Your task to perform on an android device: visit the assistant section in the google photos Image 0: 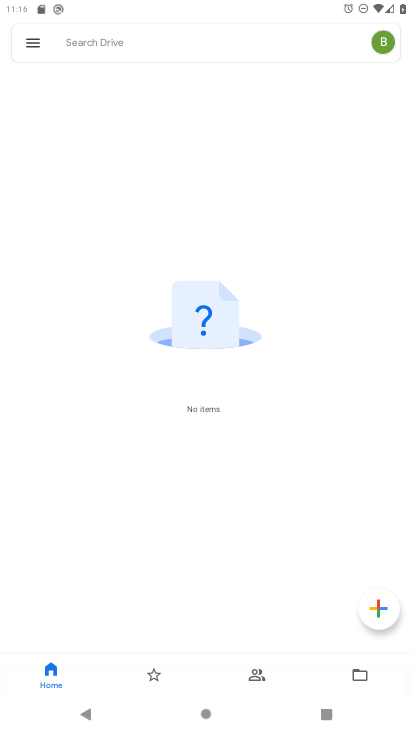
Step 0: press home button
Your task to perform on an android device: visit the assistant section in the google photos Image 1: 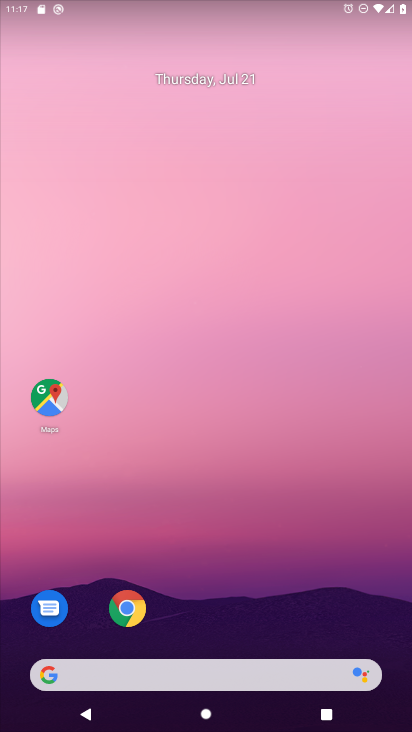
Step 1: drag from (264, 289) to (11, 589)
Your task to perform on an android device: visit the assistant section in the google photos Image 2: 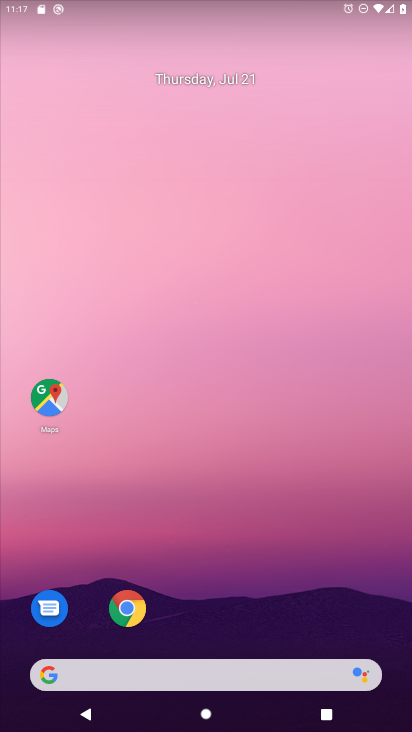
Step 2: drag from (313, 614) to (202, 20)
Your task to perform on an android device: visit the assistant section in the google photos Image 3: 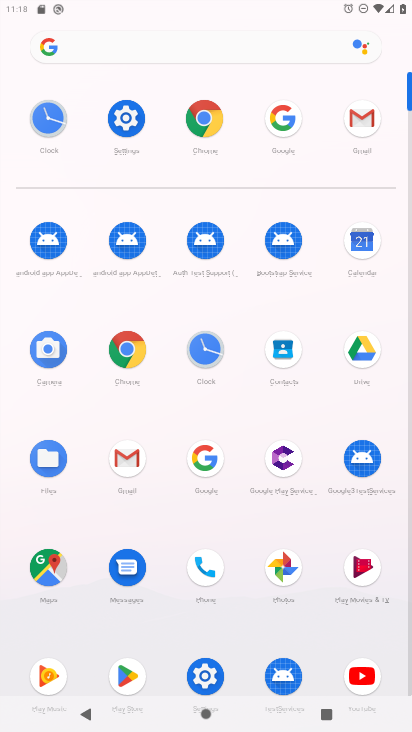
Step 3: click (274, 570)
Your task to perform on an android device: visit the assistant section in the google photos Image 4: 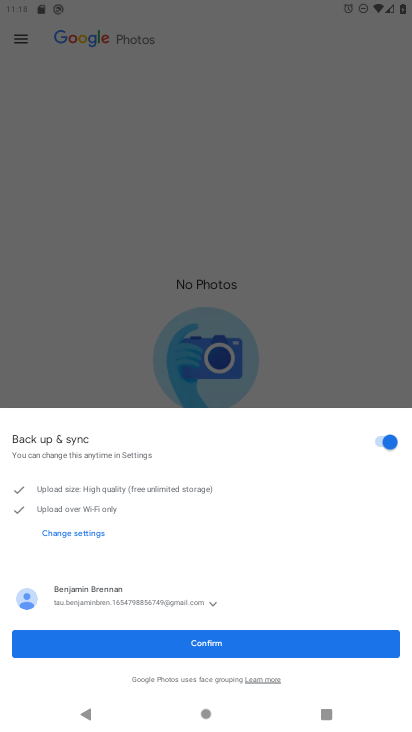
Step 4: click (198, 641)
Your task to perform on an android device: visit the assistant section in the google photos Image 5: 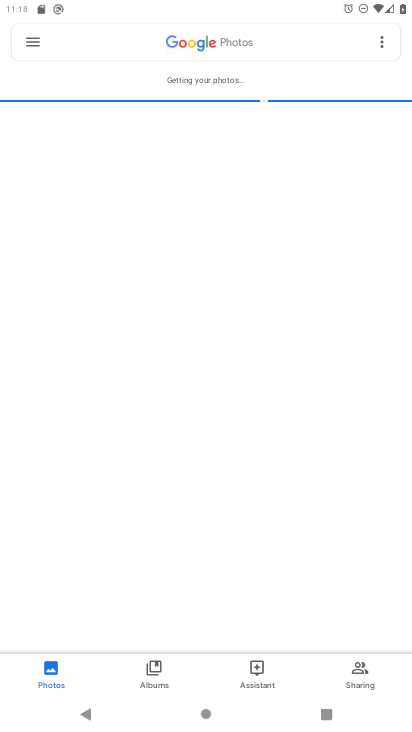
Step 5: click (253, 668)
Your task to perform on an android device: visit the assistant section in the google photos Image 6: 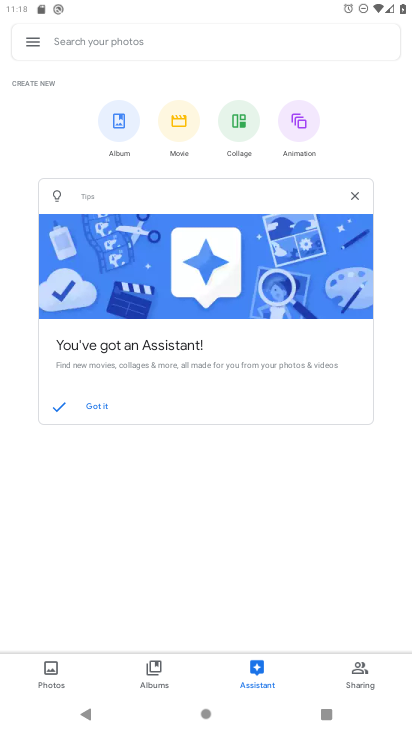
Step 6: task complete